Your task to perform on an android device: move a message to another label in the gmail app Image 0: 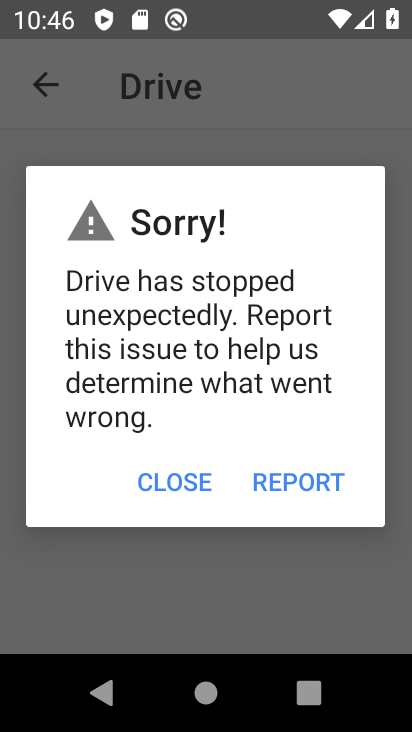
Step 0: press home button
Your task to perform on an android device: move a message to another label in the gmail app Image 1: 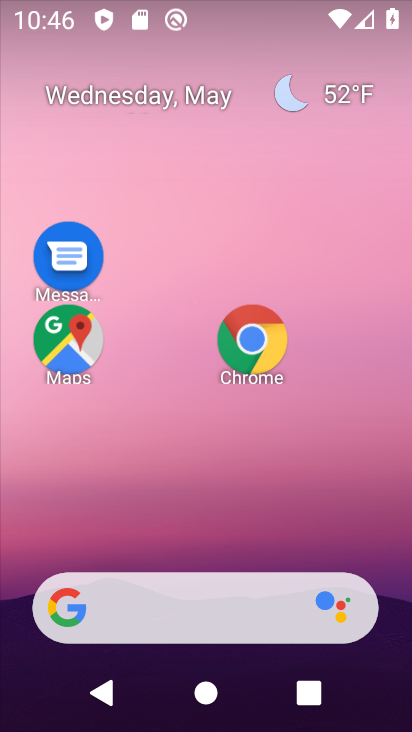
Step 1: drag from (201, 518) to (151, 60)
Your task to perform on an android device: move a message to another label in the gmail app Image 2: 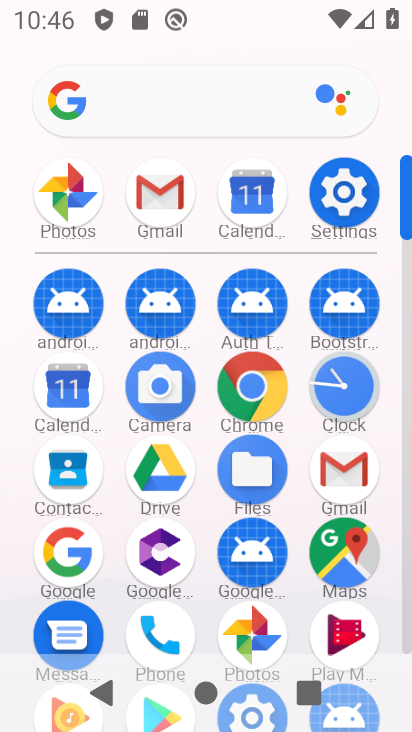
Step 2: click (154, 178)
Your task to perform on an android device: move a message to another label in the gmail app Image 3: 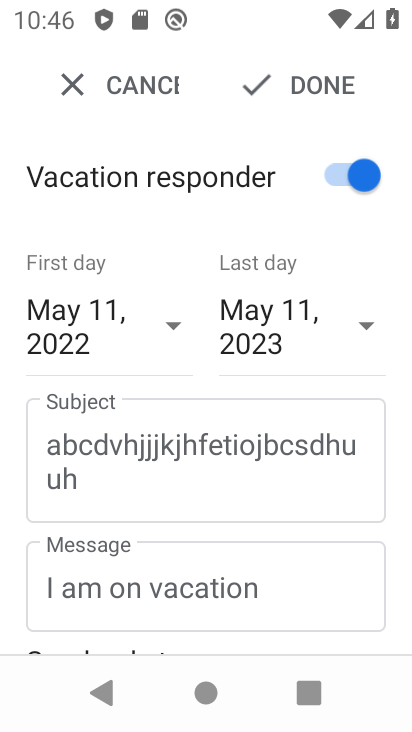
Step 3: press back button
Your task to perform on an android device: move a message to another label in the gmail app Image 4: 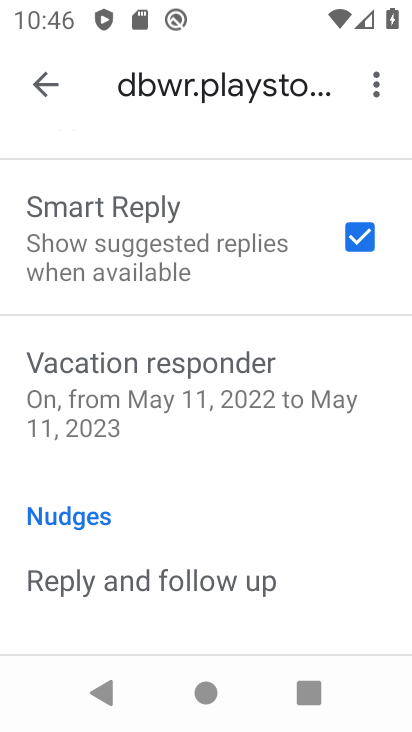
Step 4: press back button
Your task to perform on an android device: move a message to another label in the gmail app Image 5: 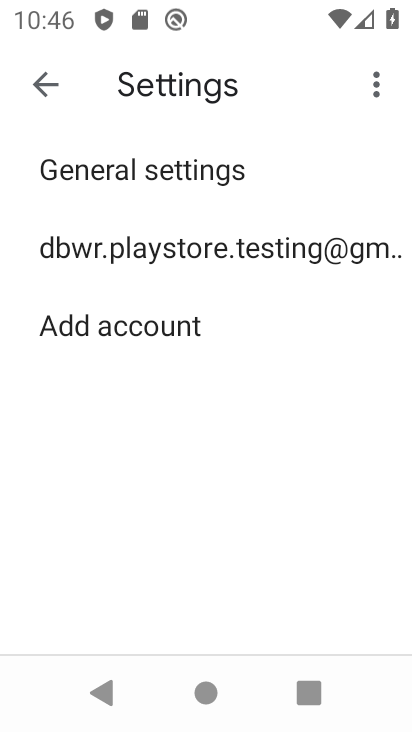
Step 5: press back button
Your task to perform on an android device: move a message to another label in the gmail app Image 6: 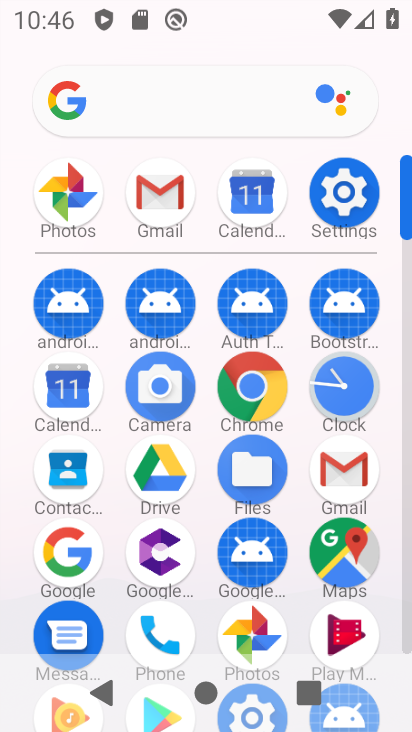
Step 6: click (177, 189)
Your task to perform on an android device: move a message to another label in the gmail app Image 7: 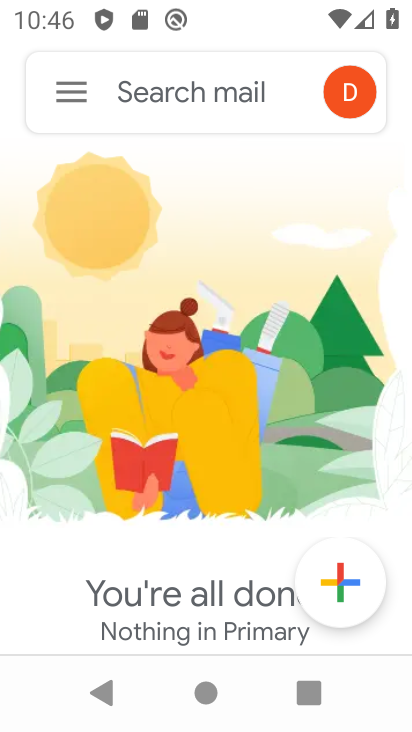
Step 7: click (74, 92)
Your task to perform on an android device: move a message to another label in the gmail app Image 8: 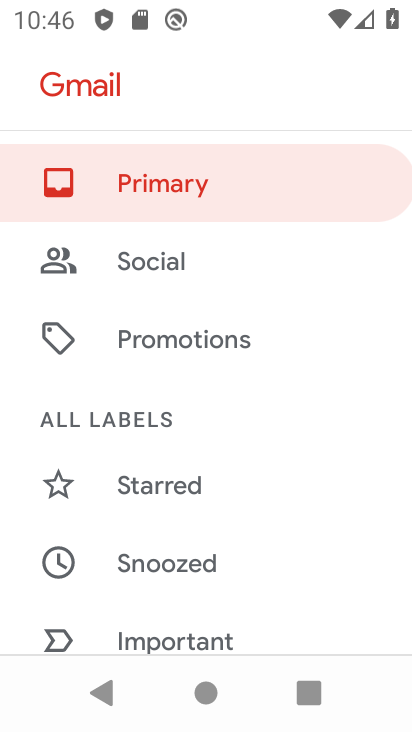
Step 8: task complete